Your task to perform on an android device: Go to location settings Image 0: 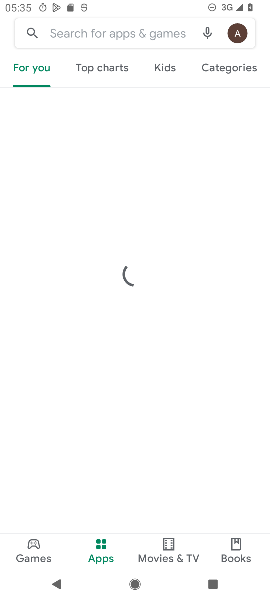
Step 0: press home button
Your task to perform on an android device: Go to location settings Image 1: 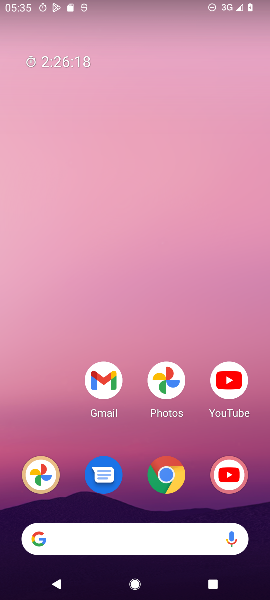
Step 1: drag from (68, 439) to (75, 199)
Your task to perform on an android device: Go to location settings Image 2: 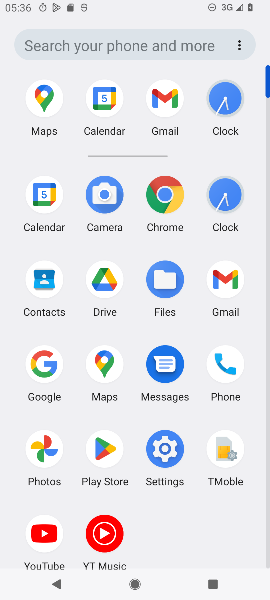
Step 2: click (171, 445)
Your task to perform on an android device: Go to location settings Image 3: 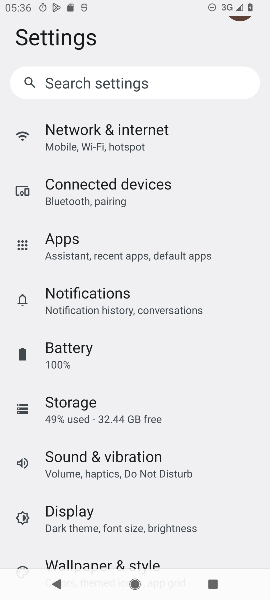
Step 3: drag from (245, 206) to (240, 318)
Your task to perform on an android device: Go to location settings Image 4: 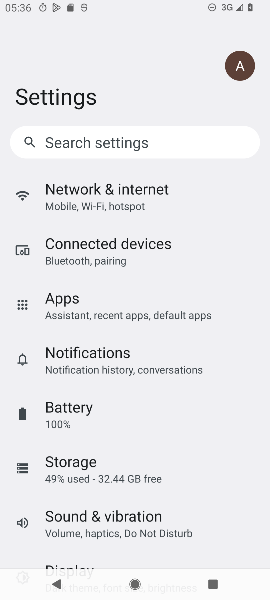
Step 4: drag from (233, 206) to (239, 412)
Your task to perform on an android device: Go to location settings Image 5: 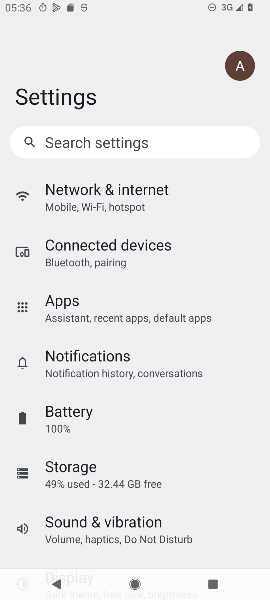
Step 5: drag from (234, 433) to (237, 314)
Your task to perform on an android device: Go to location settings Image 6: 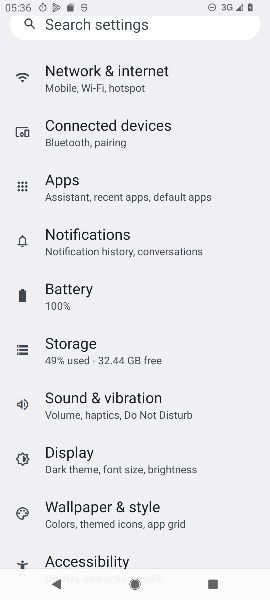
Step 6: drag from (233, 434) to (227, 334)
Your task to perform on an android device: Go to location settings Image 7: 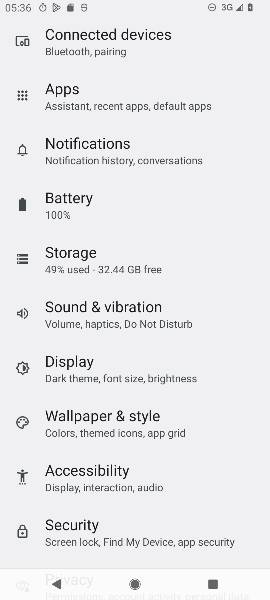
Step 7: drag from (220, 447) to (221, 342)
Your task to perform on an android device: Go to location settings Image 8: 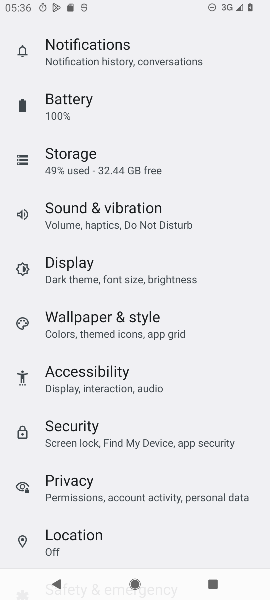
Step 8: drag from (198, 478) to (205, 317)
Your task to perform on an android device: Go to location settings Image 9: 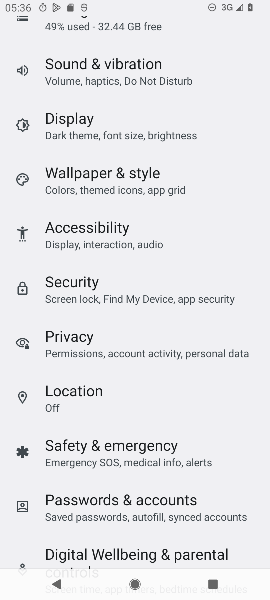
Step 9: drag from (228, 461) to (230, 301)
Your task to perform on an android device: Go to location settings Image 10: 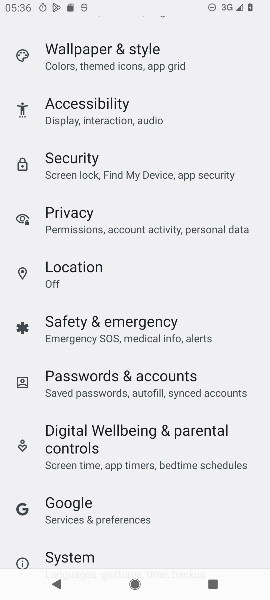
Step 10: click (94, 275)
Your task to perform on an android device: Go to location settings Image 11: 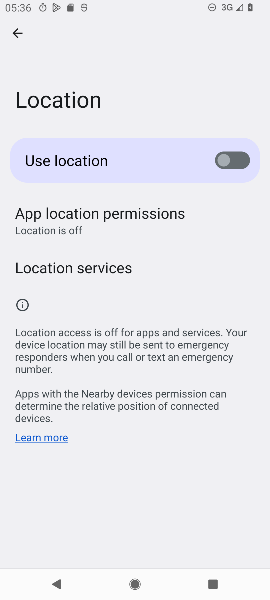
Step 11: task complete